Your task to perform on an android device: toggle wifi Image 0: 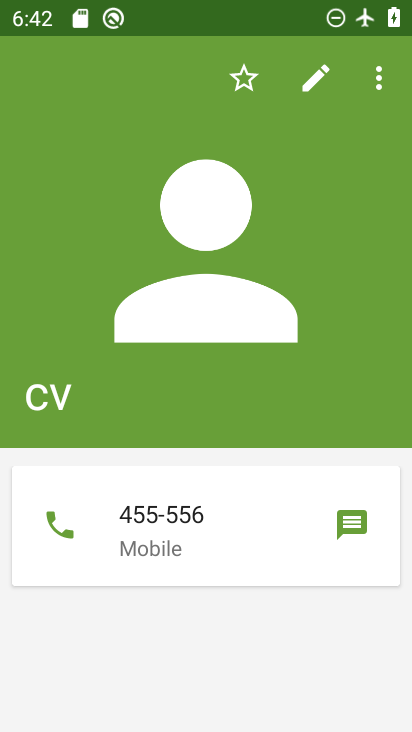
Step 0: press home button
Your task to perform on an android device: toggle wifi Image 1: 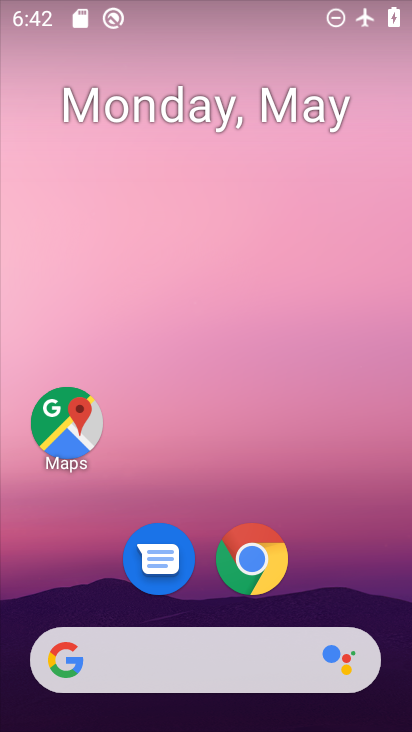
Step 1: drag from (255, 473) to (163, 67)
Your task to perform on an android device: toggle wifi Image 2: 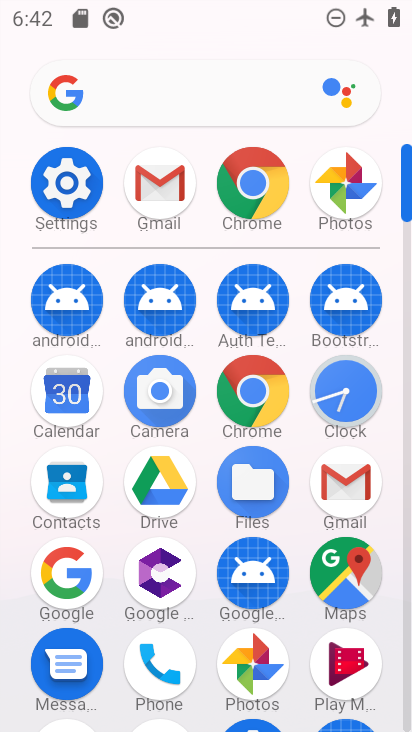
Step 2: click (70, 183)
Your task to perform on an android device: toggle wifi Image 3: 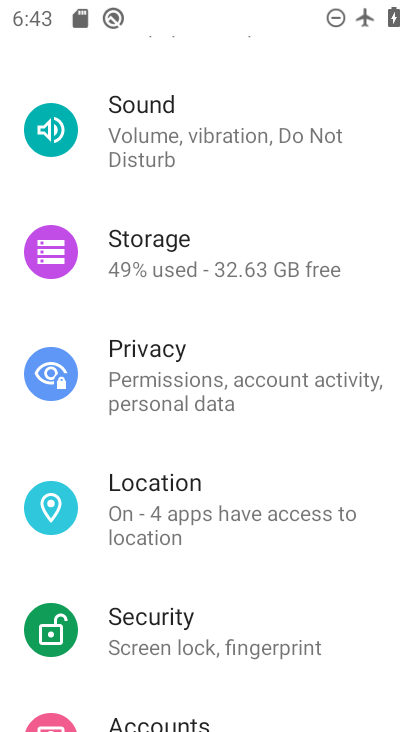
Step 3: drag from (188, 178) to (226, 547)
Your task to perform on an android device: toggle wifi Image 4: 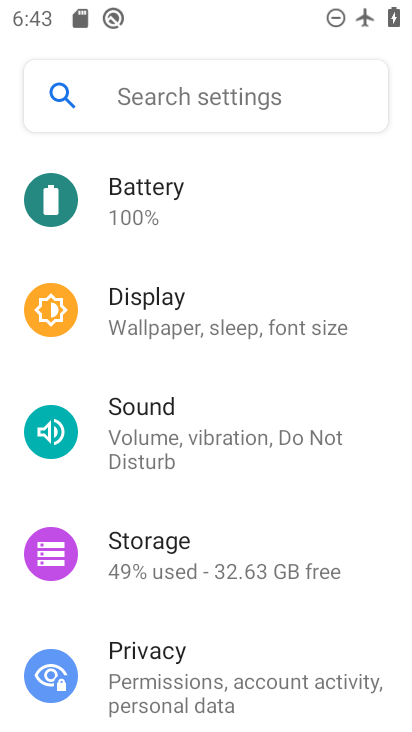
Step 4: drag from (249, 264) to (252, 628)
Your task to perform on an android device: toggle wifi Image 5: 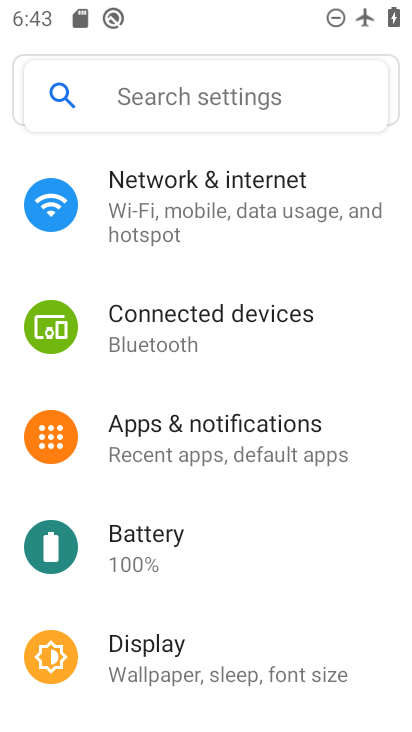
Step 5: click (193, 185)
Your task to perform on an android device: toggle wifi Image 6: 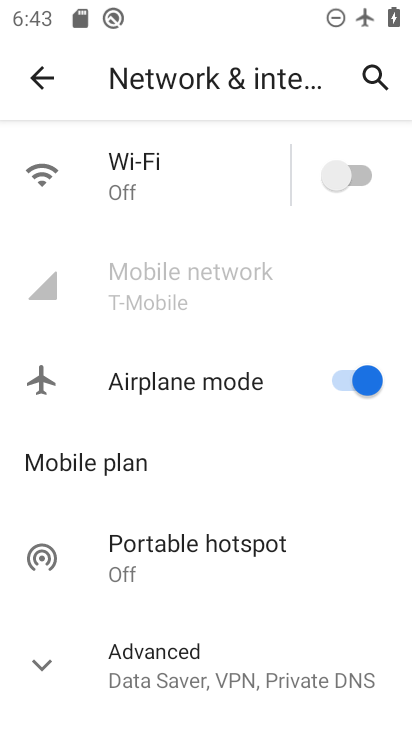
Step 6: click (335, 179)
Your task to perform on an android device: toggle wifi Image 7: 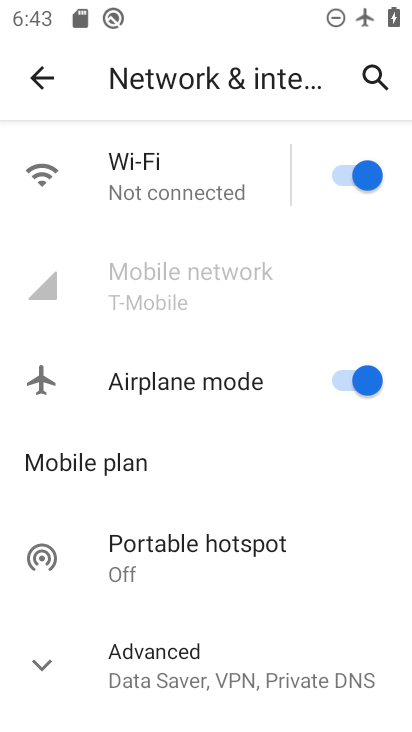
Step 7: task complete